Your task to perform on an android device: When is my next appointment? Image 0: 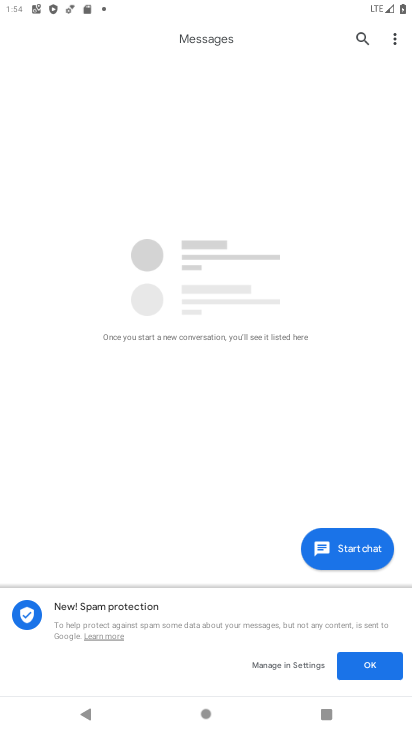
Step 0: press home button
Your task to perform on an android device: When is my next appointment? Image 1: 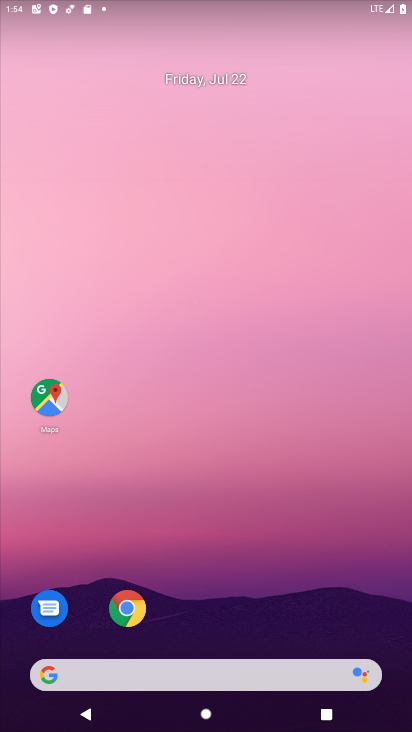
Step 1: drag from (342, 356) to (275, 16)
Your task to perform on an android device: When is my next appointment? Image 2: 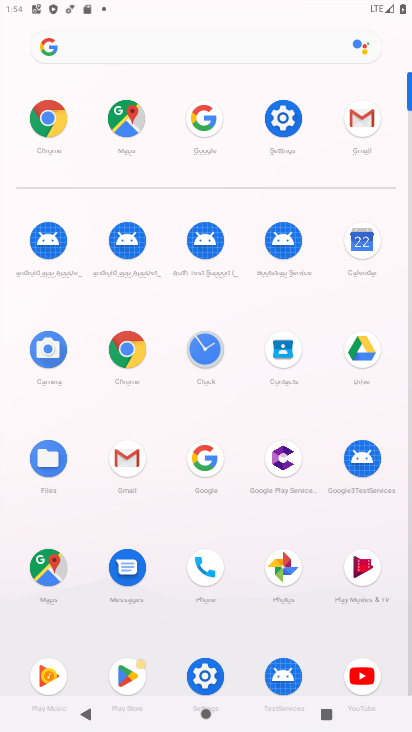
Step 2: click (359, 242)
Your task to perform on an android device: When is my next appointment? Image 3: 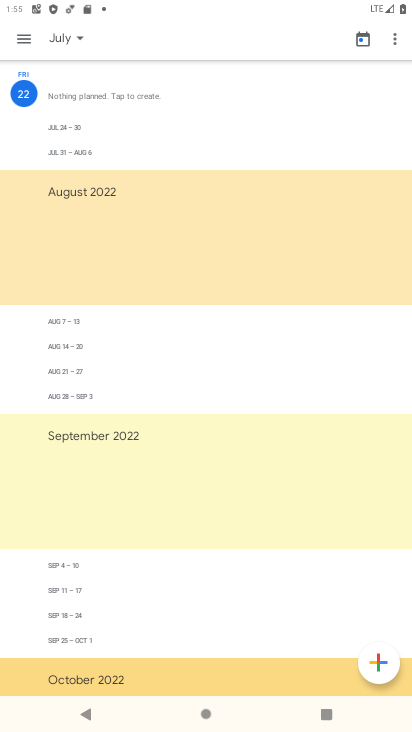
Step 3: task complete